Your task to perform on an android device: What's the news in Jamaica? Image 0: 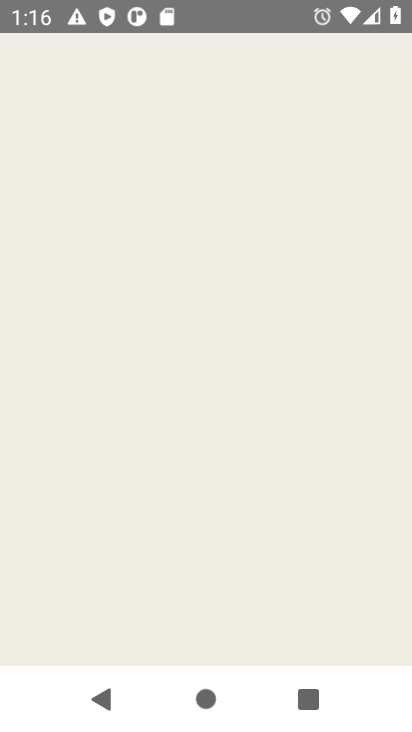
Step 0: press home button
Your task to perform on an android device: What's the news in Jamaica? Image 1: 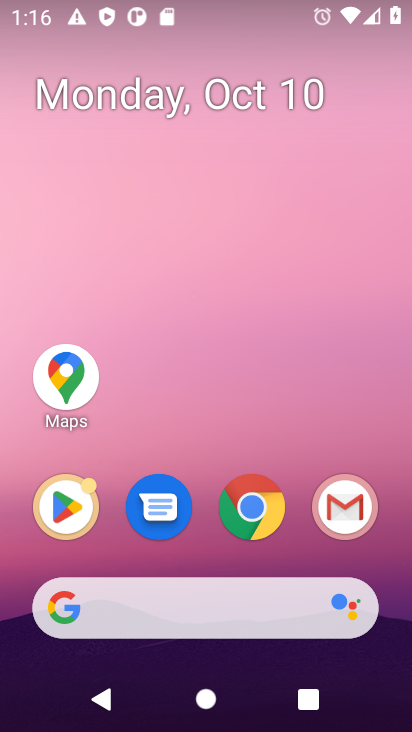
Step 1: click (260, 603)
Your task to perform on an android device: What's the news in Jamaica? Image 2: 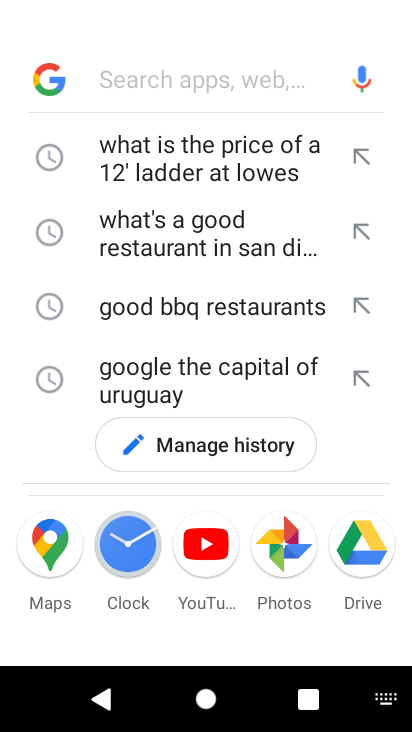
Step 2: type "What's the news in Jamaica"
Your task to perform on an android device: What's the news in Jamaica? Image 3: 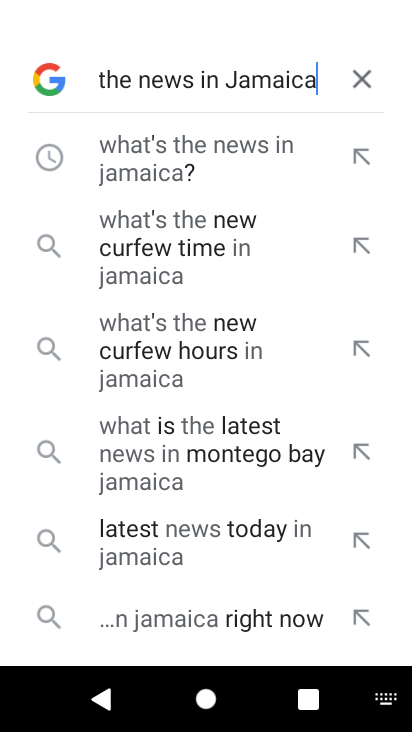
Step 3: press enter
Your task to perform on an android device: What's the news in Jamaica? Image 4: 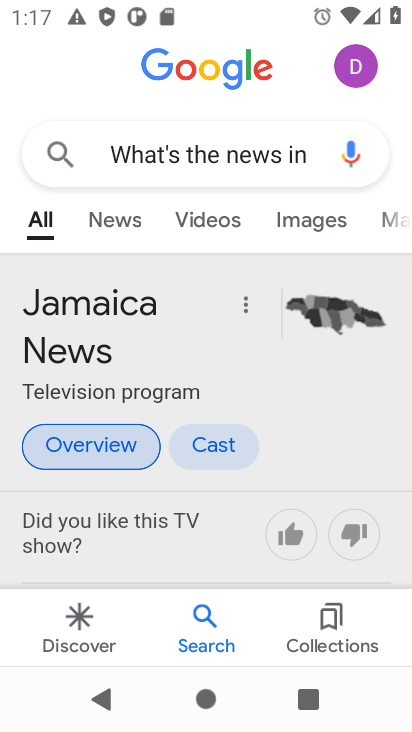
Step 4: drag from (304, 482) to (301, 373)
Your task to perform on an android device: What's the news in Jamaica? Image 5: 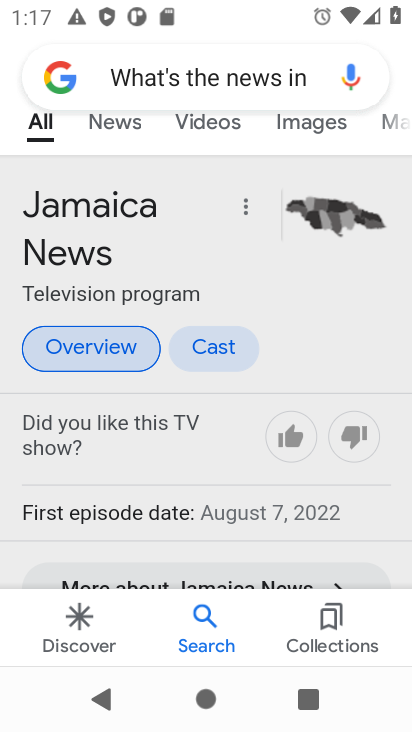
Step 5: drag from (256, 497) to (255, 347)
Your task to perform on an android device: What's the news in Jamaica? Image 6: 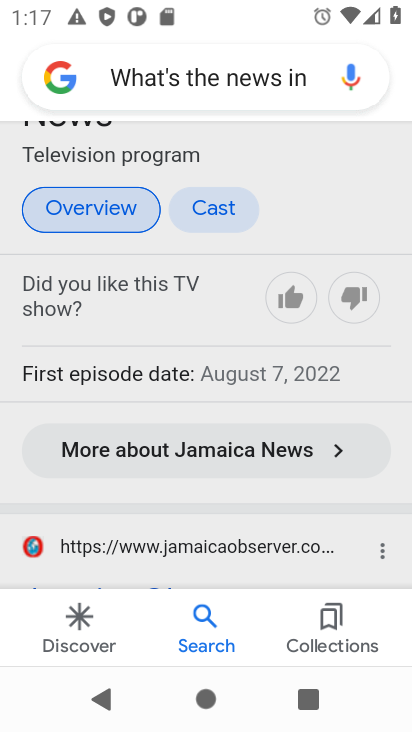
Step 6: drag from (245, 524) to (245, 332)
Your task to perform on an android device: What's the news in Jamaica? Image 7: 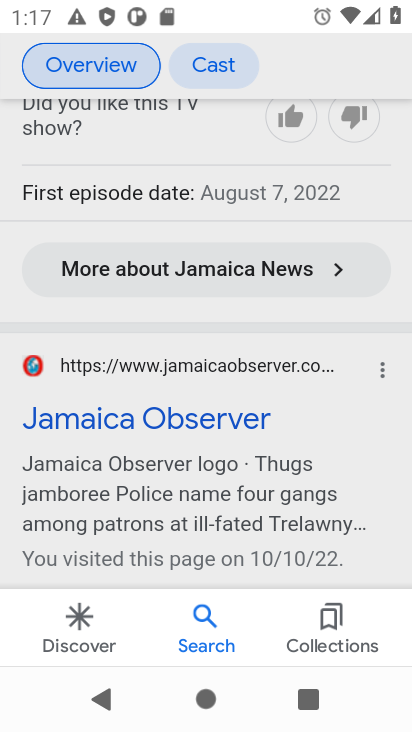
Step 7: drag from (179, 513) to (208, 284)
Your task to perform on an android device: What's the news in Jamaica? Image 8: 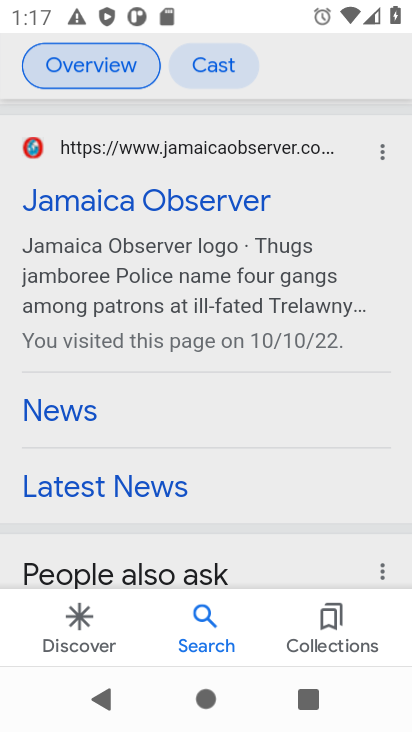
Step 8: click (67, 408)
Your task to perform on an android device: What's the news in Jamaica? Image 9: 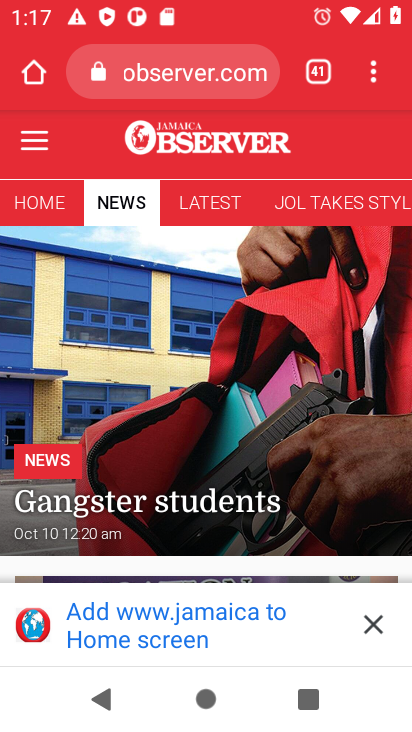
Step 9: drag from (283, 491) to (301, 328)
Your task to perform on an android device: What's the news in Jamaica? Image 10: 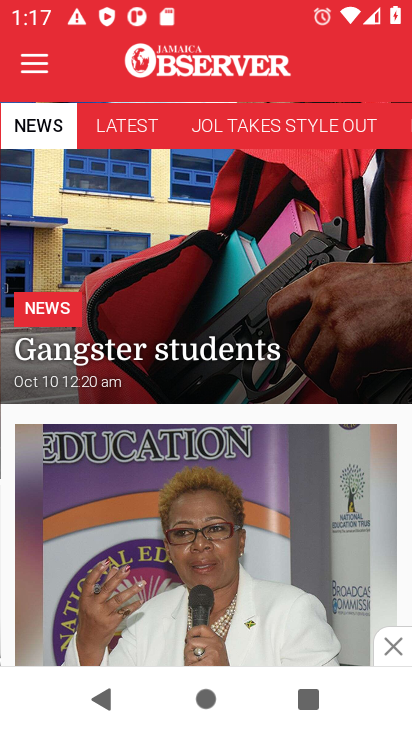
Step 10: drag from (284, 515) to (294, 393)
Your task to perform on an android device: What's the news in Jamaica? Image 11: 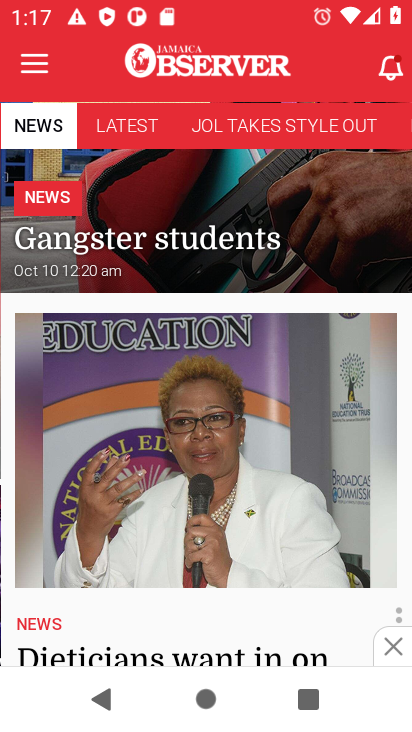
Step 11: drag from (282, 569) to (288, 439)
Your task to perform on an android device: What's the news in Jamaica? Image 12: 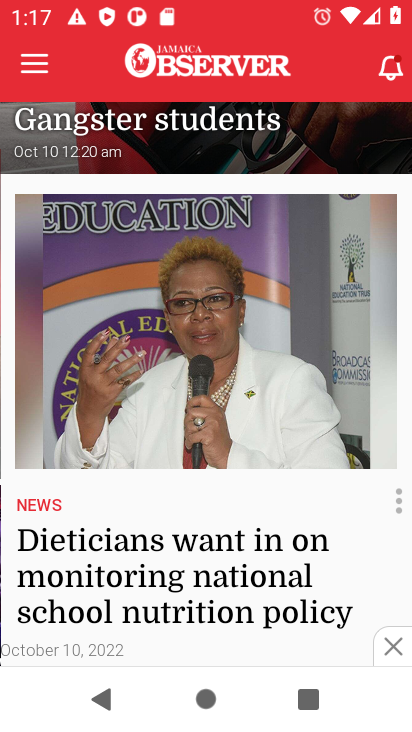
Step 12: drag from (287, 593) to (298, 464)
Your task to perform on an android device: What's the news in Jamaica? Image 13: 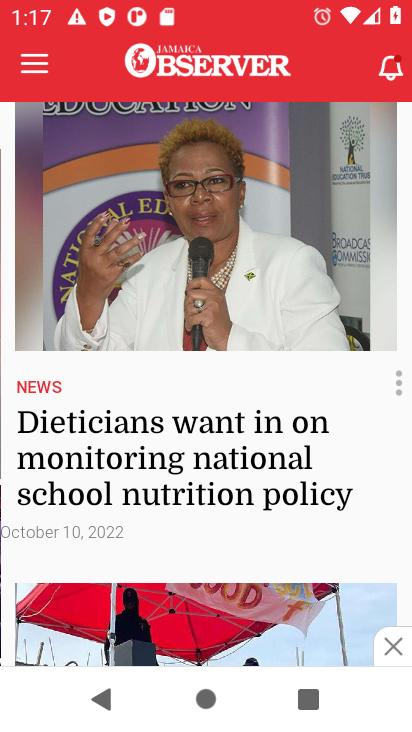
Step 13: drag from (284, 615) to (300, 462)
Your task to perform on an android device: What's the news in Jamaica? Image 14: 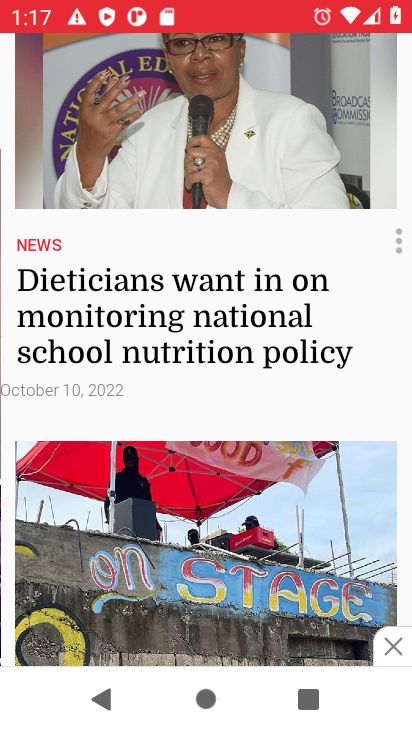
Step 14: drag from (282, 606) to (295, 488)
Your task to perform on an android device: What's the news in Jamaica? Image 15: 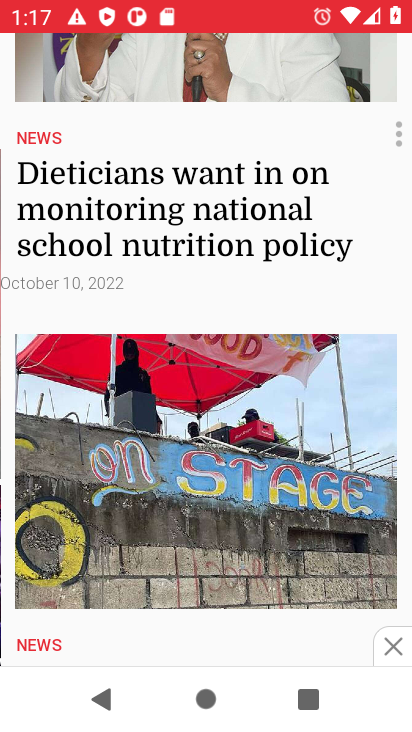
Step 15: drag from (268, 624) to (275, 502)
Your task to perform on an android device: What's the news in Jamaica? Image 16: 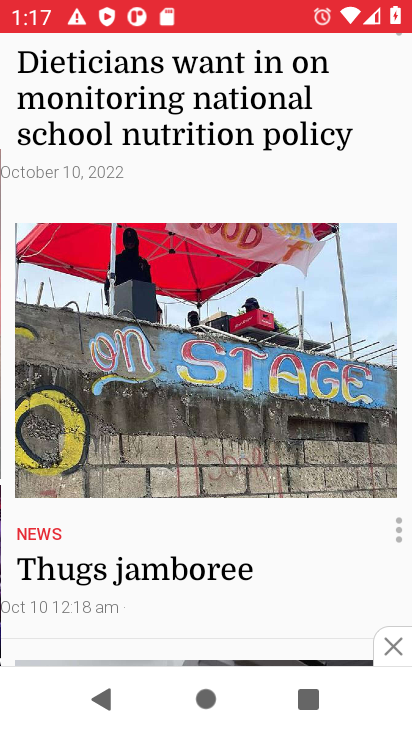
Step 16: drag from (278, 608) to (289, 493)
Your task to perform on an android device: What's the news in Jamaica? Image 17: 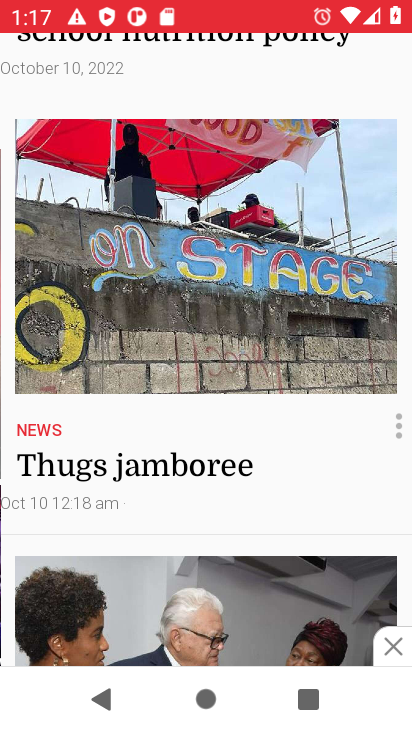
Step 17: drag from (310, 589) to (330, 387)
Your task to perform on an android device: What's the news in Jamaica? Image 18: 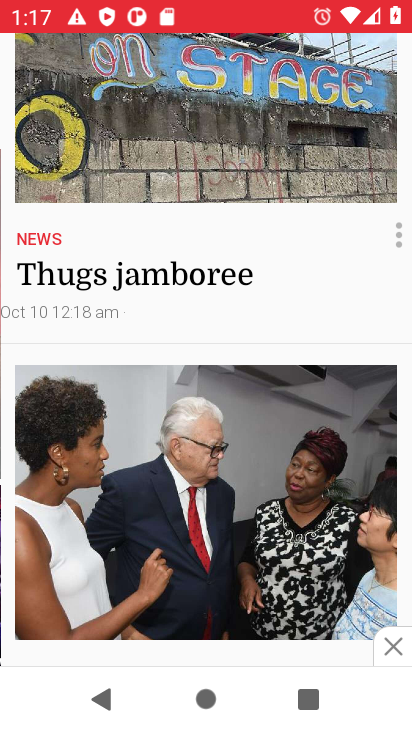
Step 18: drag from (308, 548) to (308, 403)
Your task to perform on an android device: What's the news in Jamaica? Image 19: 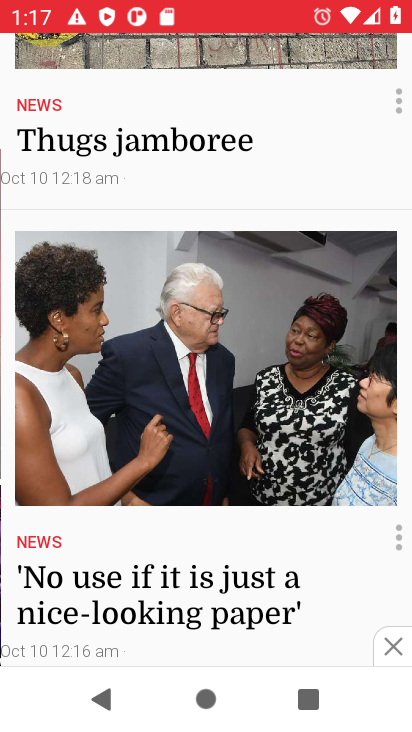
Step 19: drag from (305, 612) to (319, 425)
Your task to perform on an android device: What's the news in Jamaica? Image 20: 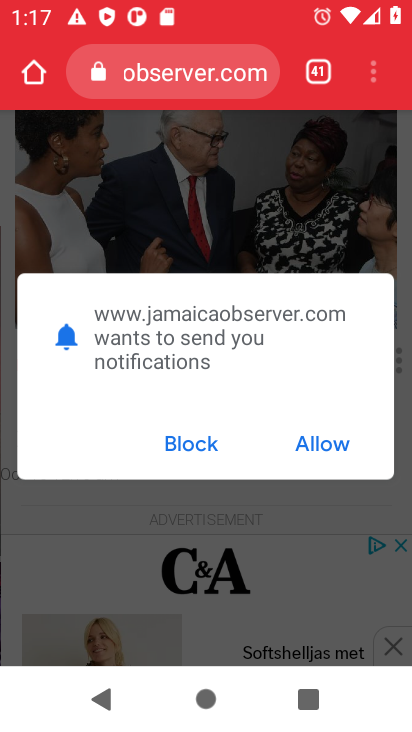
Step 20: click (209, 443)
Your task to perform on an android device: What's the news in Jamaica? Image 21: 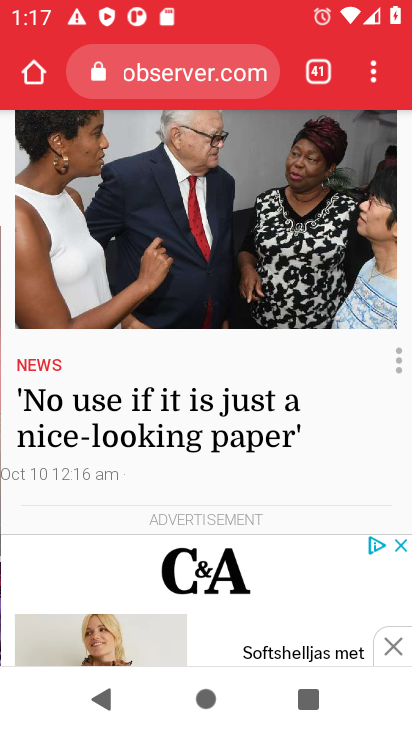
Step 21: task complete